Your task to perform on an android device: Turn off the flashlight Image 0: 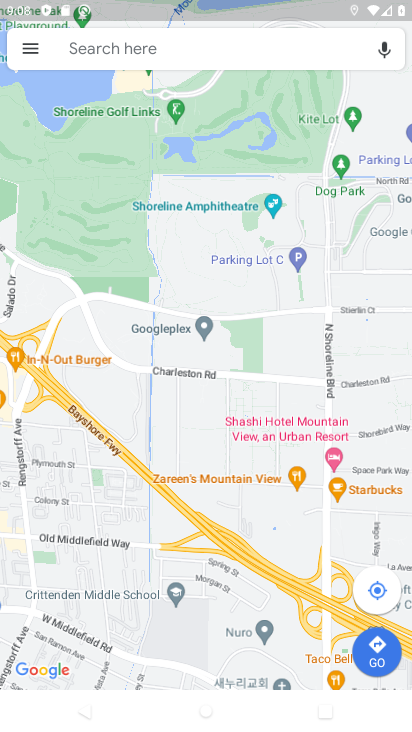
Step 0: press home button
Your task to perform on an android device: Turn off the flashlight Image 1: 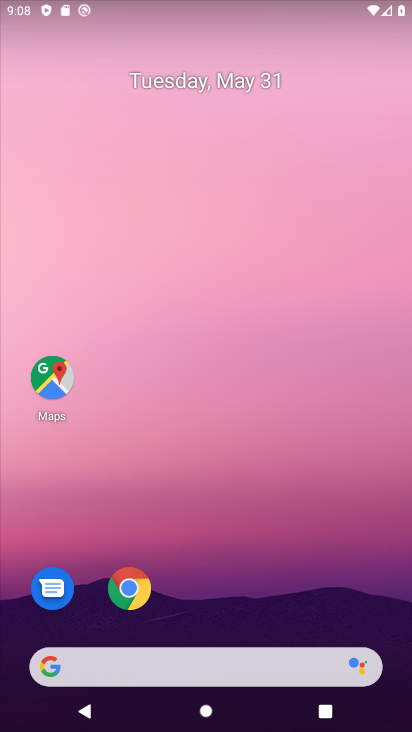
Step 1: drag from (230, 612) to (214, 54)
Your task to perform on an android device: Turn off the flashlight Image 2: 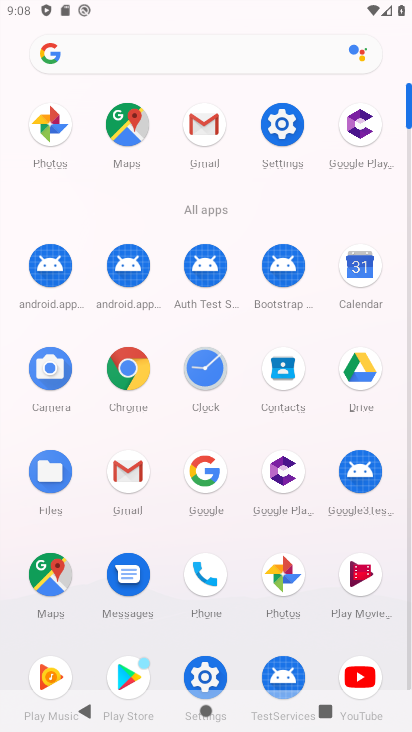
Step 2: click (282, 127)
Your task to perform on an android device: Turn off the flashlight Image 3: 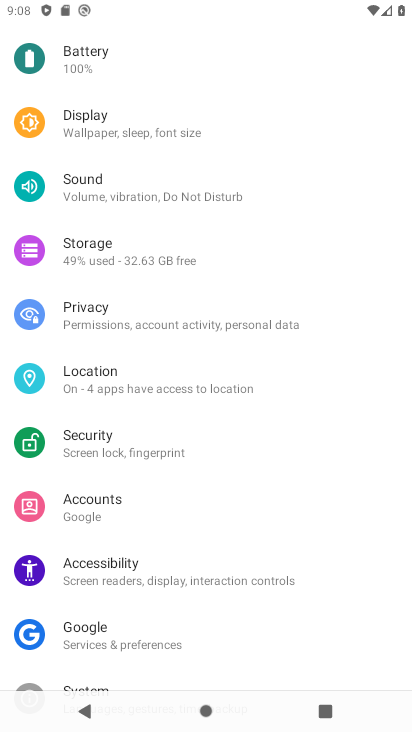
Step 3: task complete